Your task to perform on an android device: open a new tab in the chrome app Image 0: 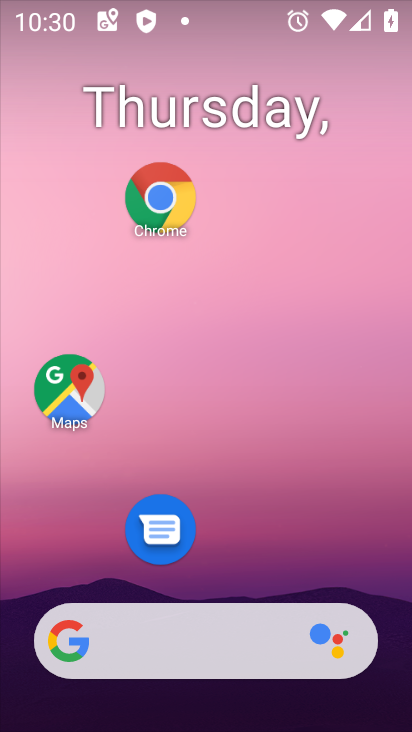
Step 0: click (155, 200)
Your task to perform on an android device: open a new tab in the chrome app Image 1: 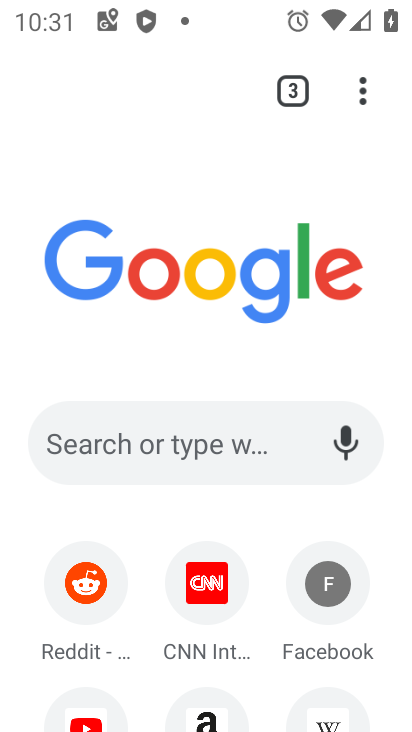
Step 1: click (364, 91)
Your task to perform on an android device: open a new tab in the chrome app Image 2: 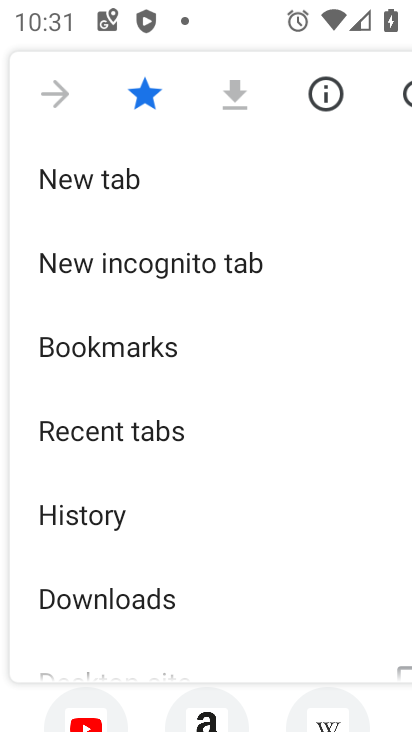
Step 2: click (119, 180)
Your task to perform on an android device: open a new tab in the chrome app Image 3: 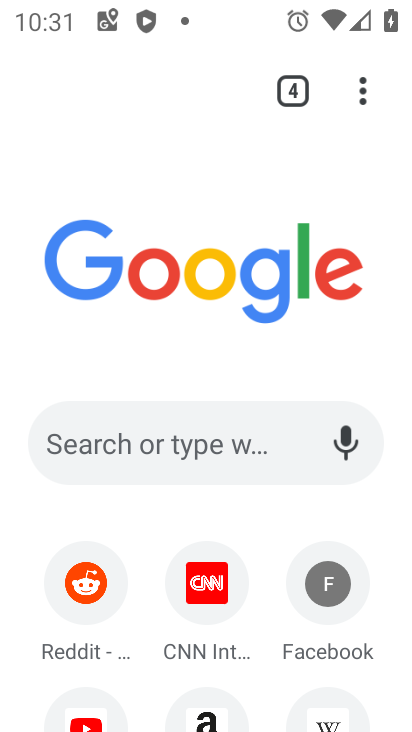
Step 3: task complete